Your task to perform on an android device: turn off notifications settings in the gmail app Image 0: 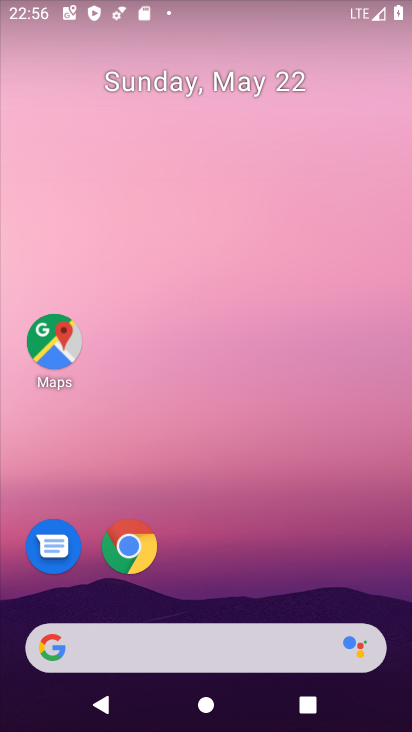
Step 0: click (387, 191)
Your task to perform on an android device: turn off notifications settings in the gmail app Image 1: 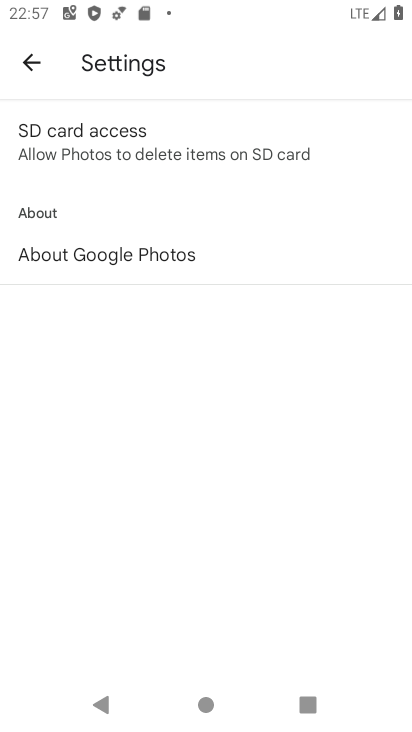
Step 1: drag from (308, 501) to (296, 389)
Your task to perform on an android device: turn off notifications settings in the gmail app Image 2: 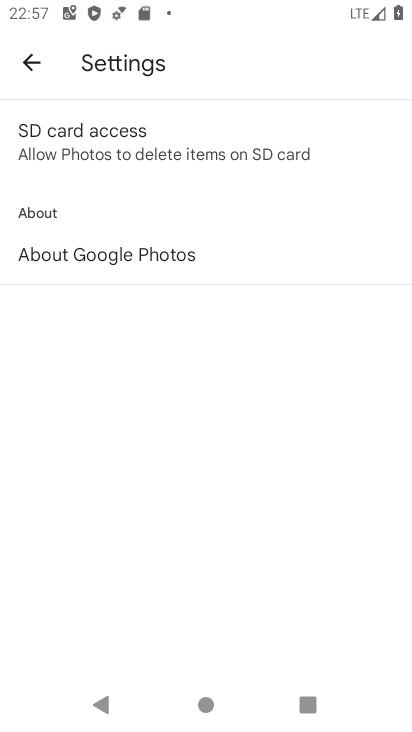
Step 2: drag from (276, 610) to (259, 330)
Your task to perform on an android device: turn off notifications settings in the gmail app Image 3: 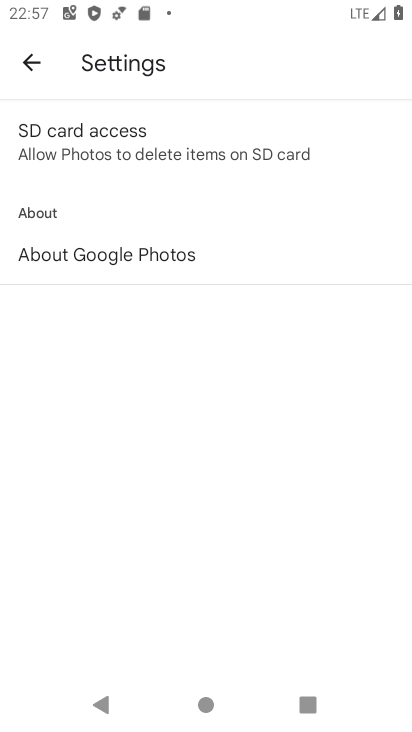
Step 3: drag from (191, 478) to (258, 223)
Your task to perform on an android device: turn off notifications settings in the gmail app Image 4: 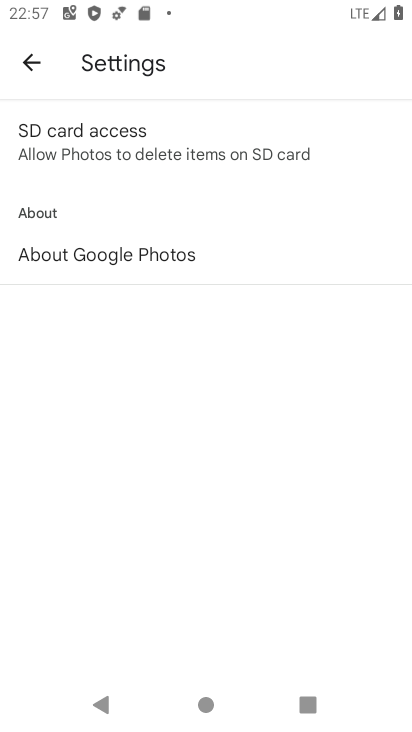
Step 4: press home button
Your task to perform on an android device: turn off notifications settings in the gmail app Image 5: 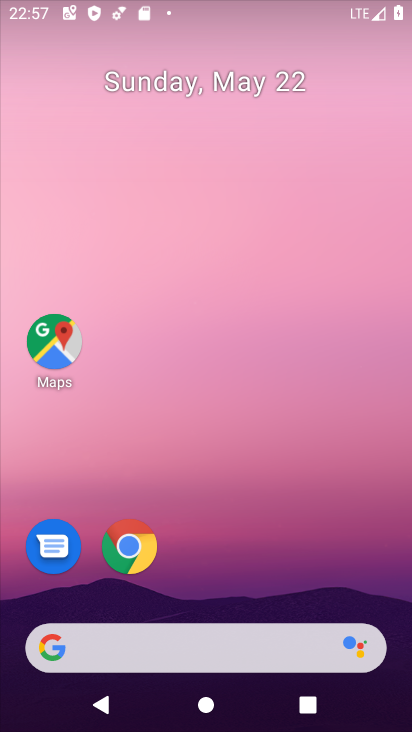
Step 5: drag from (256, 512) to (344, 54)
Your task to perform on an android device: turn off notifications settings in the gmail app Image 6: 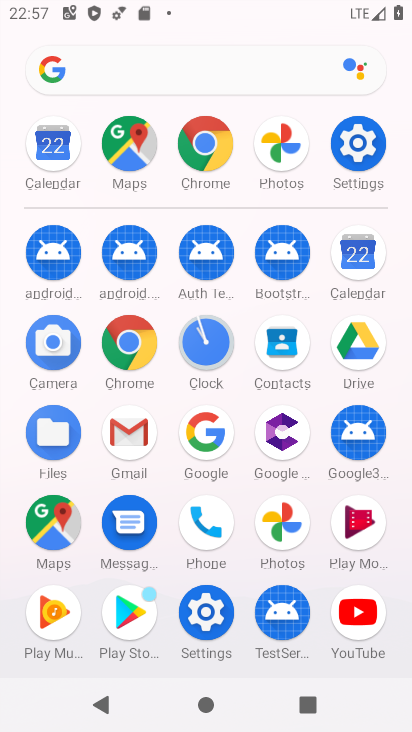
Step 6: click (133, 434)
Your task to perform on an android device: turn off notifications settings in the gmail app Image 7: 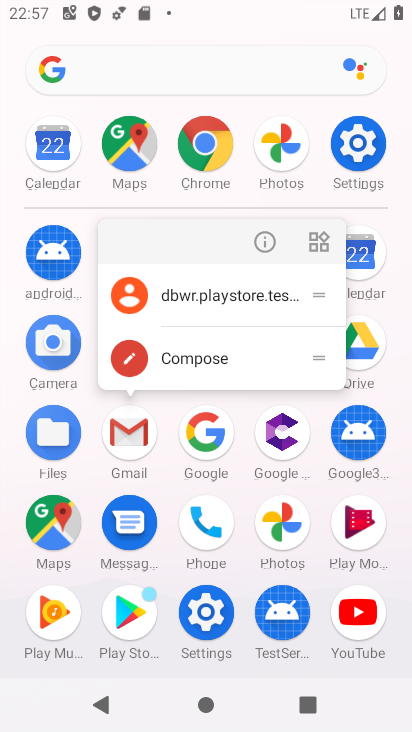
Step 7: click (260, 249)
Your task to perform on an android device: turn off notifications settings in the gmail app Image 8: 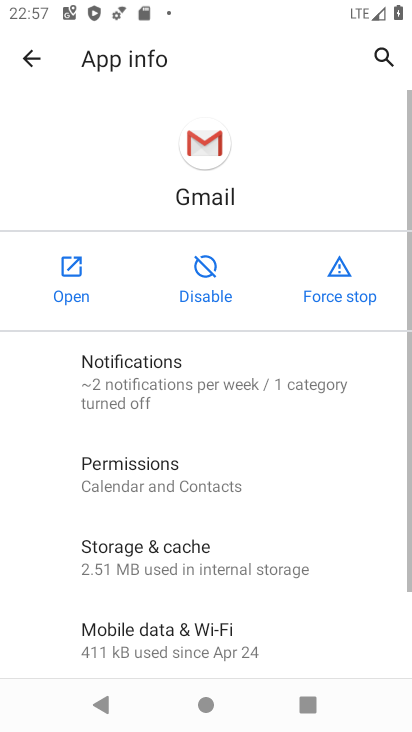
Step 8: click (73, 275)
Your task to perform on an android device: turn off notifications settings in the gmail app Image 9: 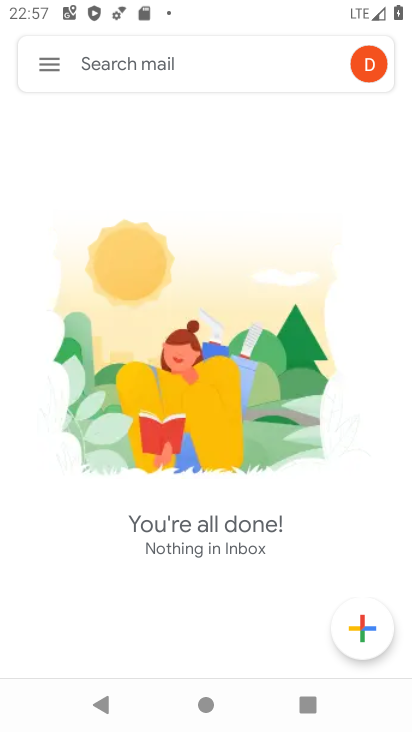
Step 9: click (50, 59)
Your task to perform on an android device: turn off notifications settings in the gmail app Image 10: 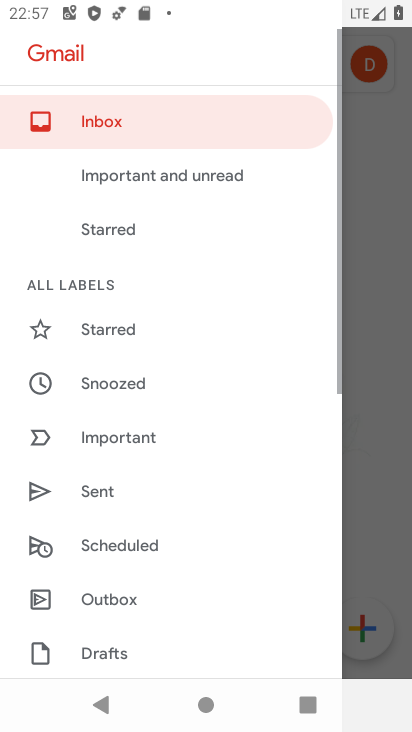
Step 10: drag from (125, 538) to (182, 136)
Your task to perform on an android device: turn off notifications settings in the gmail app Image 11: 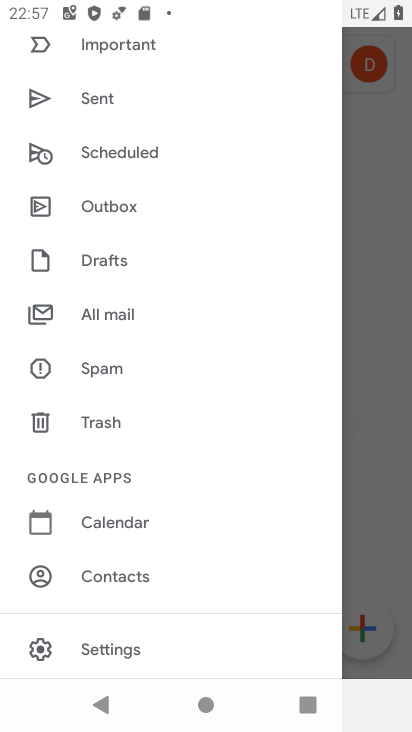
Step 11: drag from (115, 553) to (161, 296)
Your task to perform on an android device: turn off notifications settings in the gmail app Image 12: 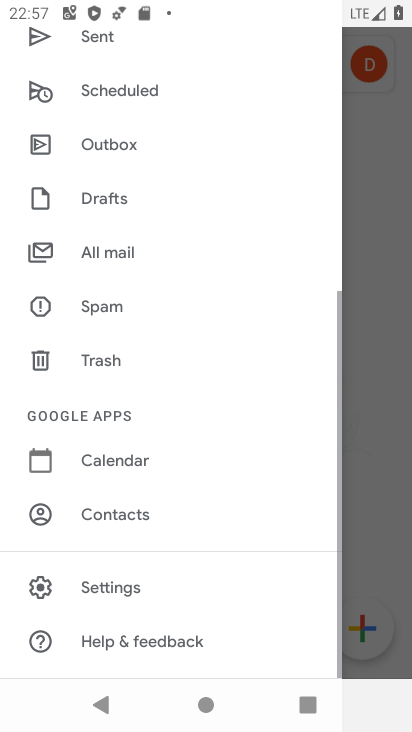
Step 12: click (111, 567)
Your task to perform on an android device: turn off notifications settings in the gmail app Image 13: 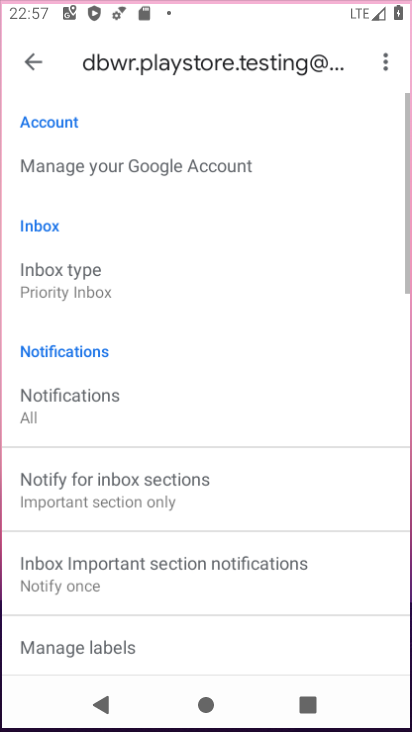
Step 13: drag from (152, 563) to (257, 140)
Your task to perform on an android device: turn off notifications settings in the gmail app Image 14: 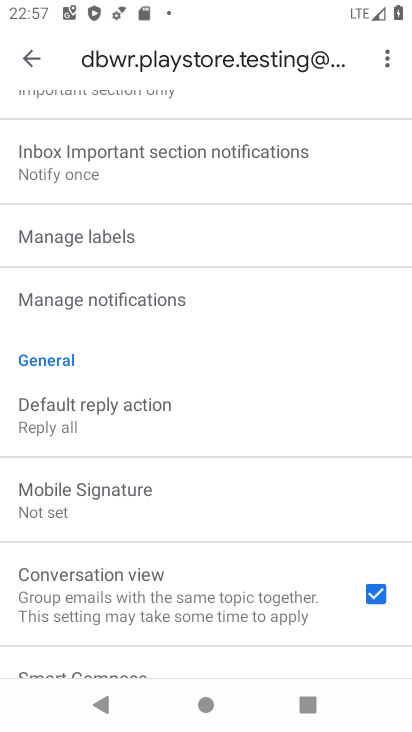
Step 14: drag from (177, 611) to (212, 282)
Your task to perform on an android device: turn off notifications settings in the gmail app Image 15: 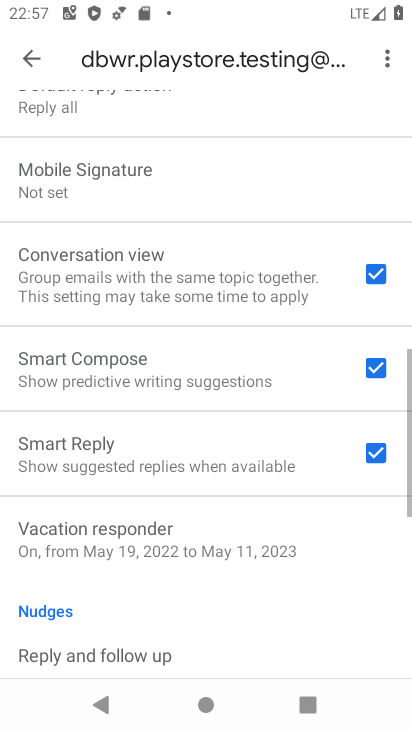
Step 15: drag from (171, 565) to (211, 349)
Your task to perform on an android device: turn off notifications settings in the gmail app Image 16: 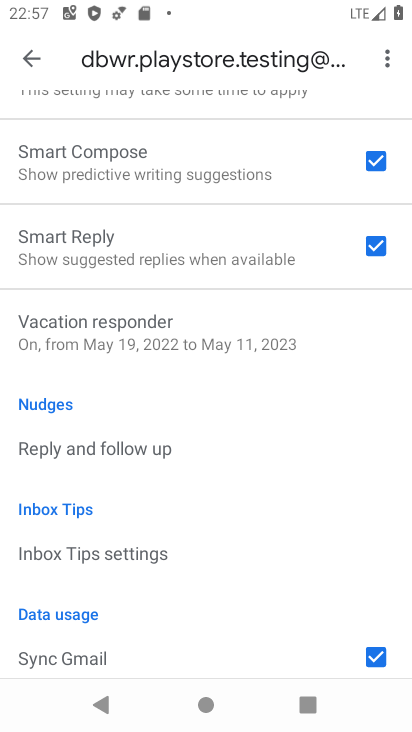
Step 16: drag from (208, 255) to (207, 730)
Your task to perform on an android device: turn off notifications settings in the gmail app Image 17: 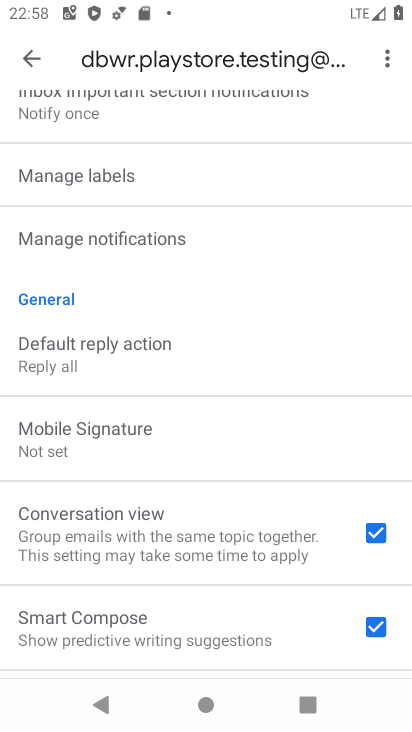
Step 17: drag from (210, 474) to (253, 589)
Your task to perform on an android device: turn off notifications settings in the gmail app Image 18: 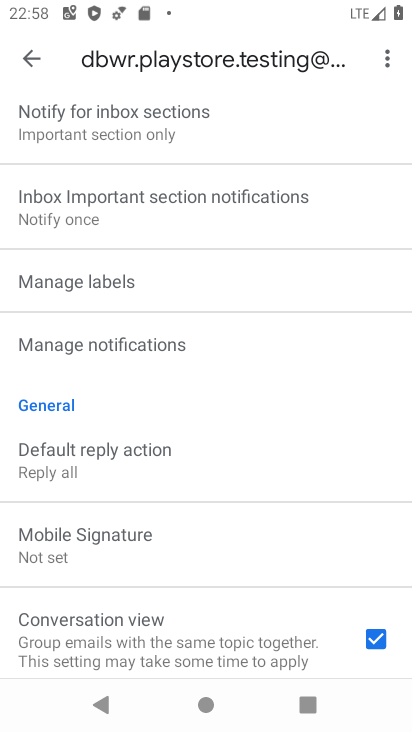
Step 18: drag from (187, 593) to (239, 174)
Your task to perform on an android device: turn off notifications settings in the gmail app Image 19: 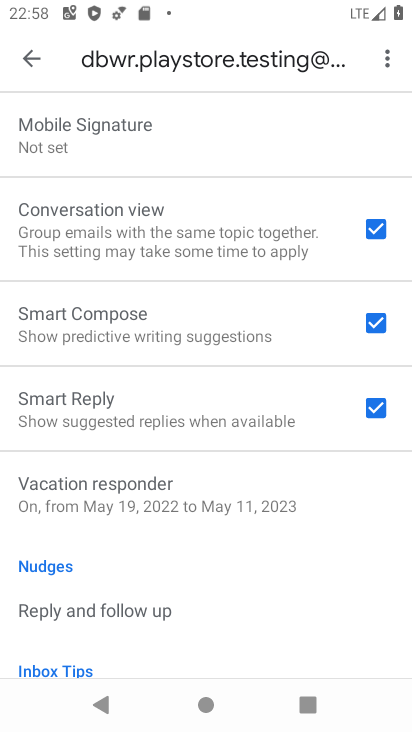
Step 19: drag from (224, 198) to (263, 715)
Your task to perform on an android device: turn off notifications settings in the gmail app Image 20: 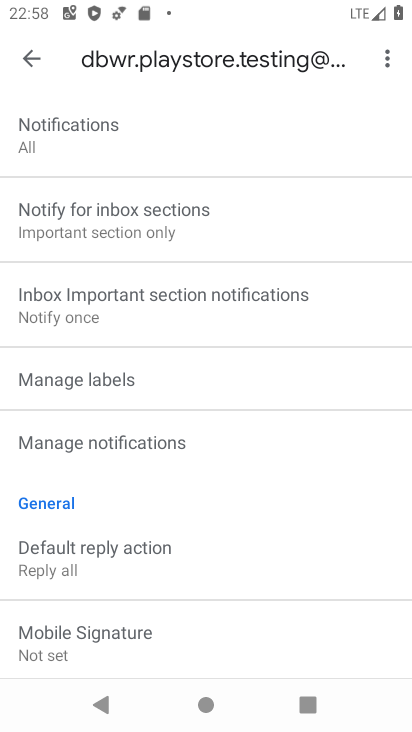
Step 20: drag from (141, 150) to (221, 478)
Your task to perform on an android device: turn off notifications settings in the gmail app Image 21: 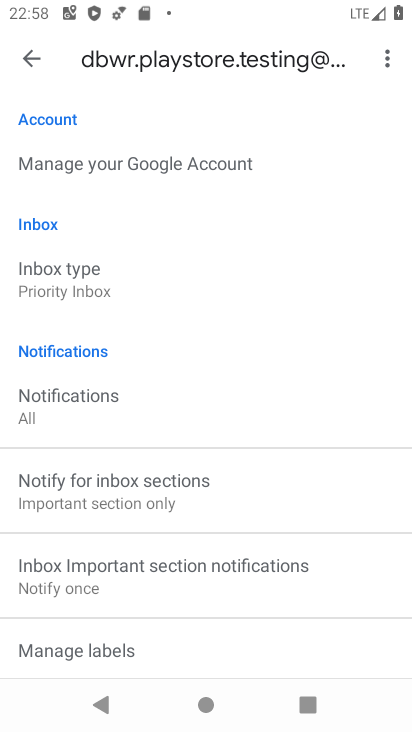
Step 21: click (83, 407)
Your task to perform on an android device: turn off notifications settings in the gmail app Image 22: 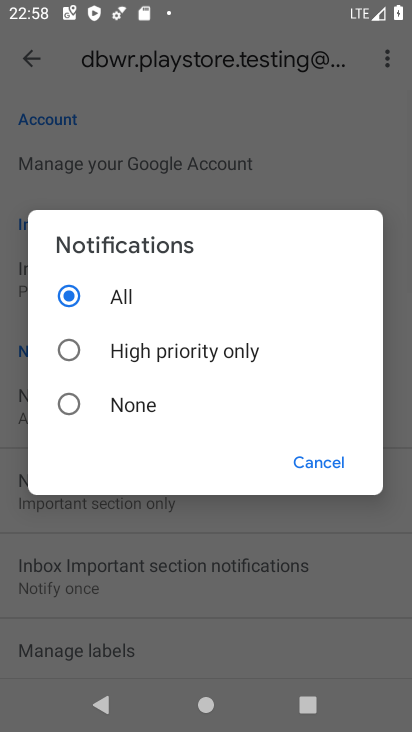
Step 22: click (320, 473)
Your task to perform on an android device: turn off notifications settings in the gmail app Image 23: 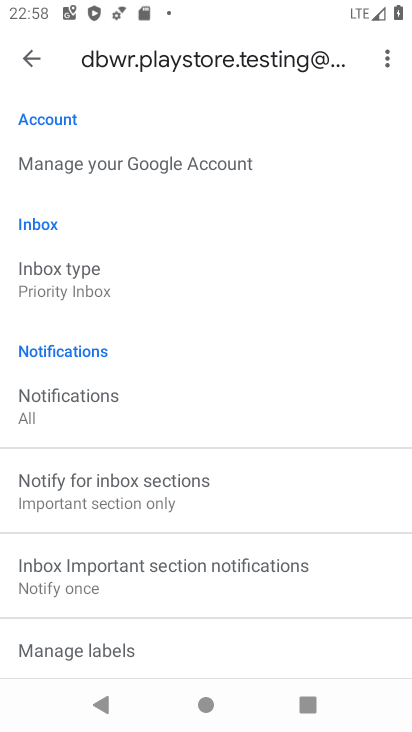
Step 23: drag from (176, 554) to (218, 160)
Your task to perform on an android device: turn off notifications settings in the gmail app Image 24: 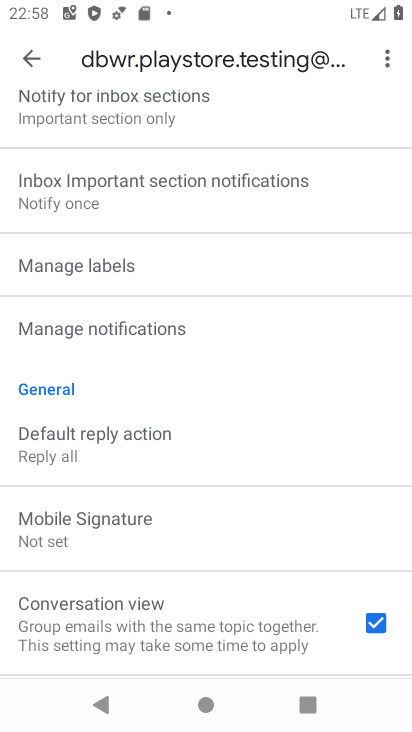
Step 24: click (138, 320)
Your task to perform on an android device: turn off notifications settings in the gmail app Image 25: 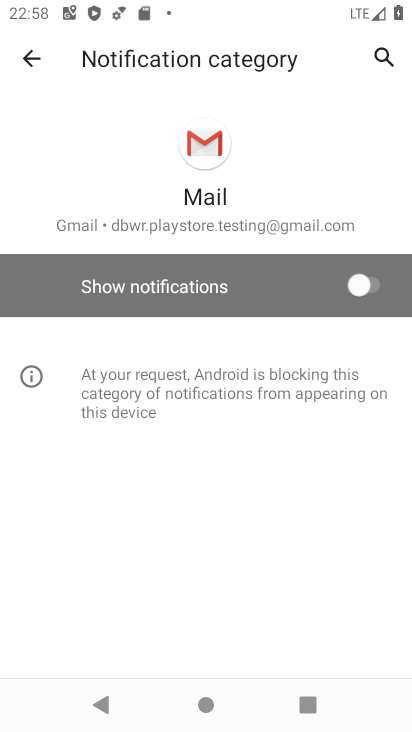
Step 25: task complete